Your task to perform on an android device: What is the recent news? Image 0: 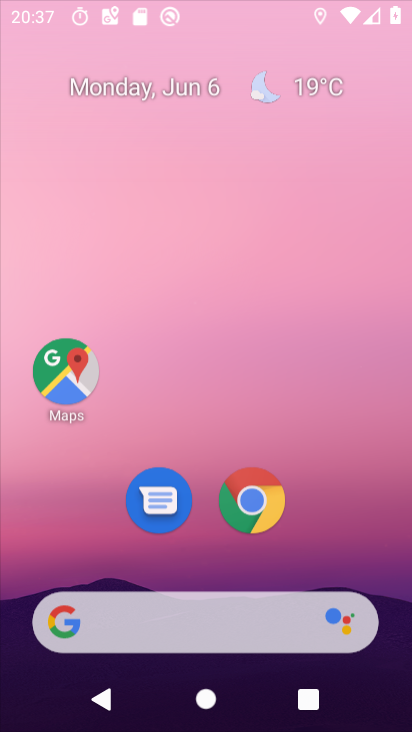
Step 0: drag from (312, 575) to (334, 83)
Your task to perform on an android device: What is the recent news? Image 1: 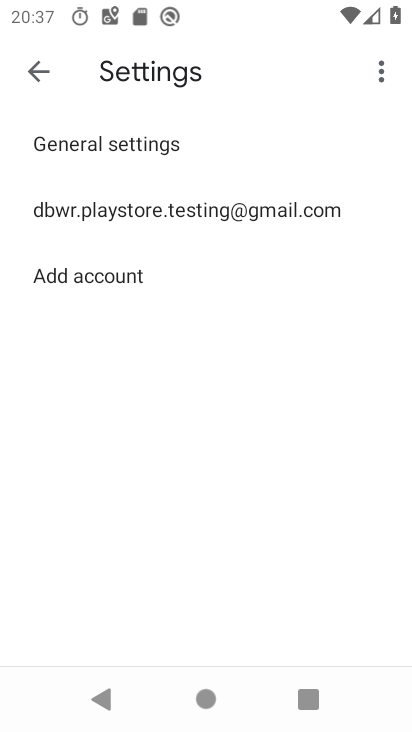
Step 1: press home button
Your task to perform on an android device: What is the recent news? Image 2: 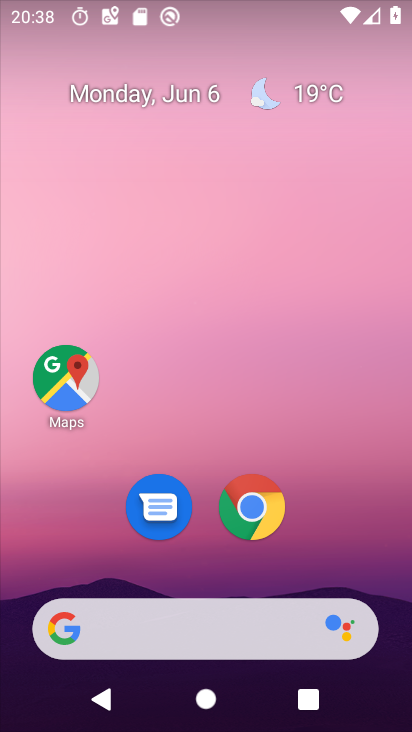
Step 2: click (258, 508)
Your task to perform on an android device: What is the recent news? Image 3: 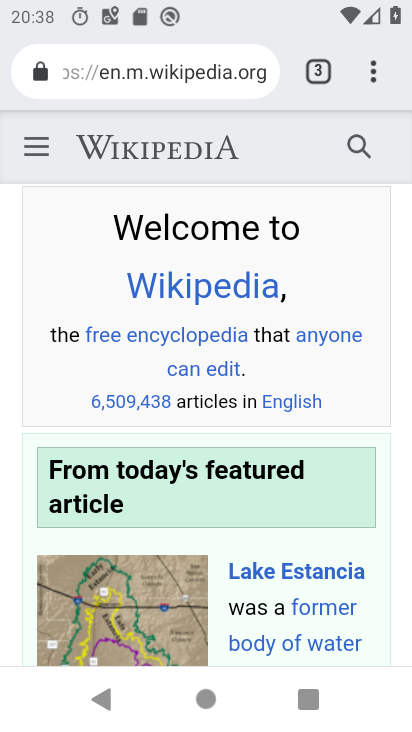
Step 3: click (205, 80)
Your task to perform on an android device: What is the recent news? Image 4: 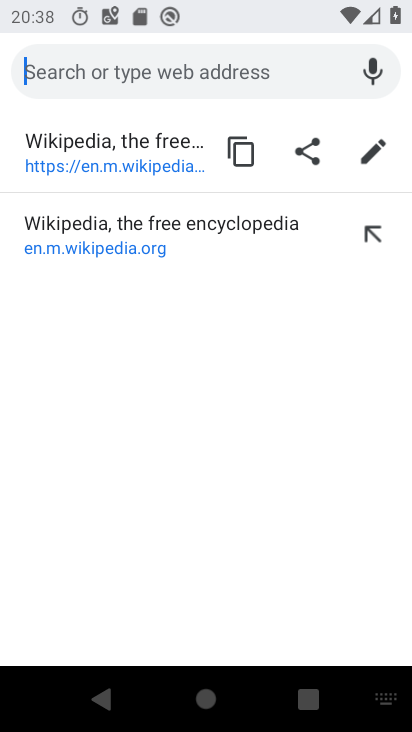
Step 4: type "What is the recent news?"
Your task to perform on an android device: What is the recent news? Image 5: 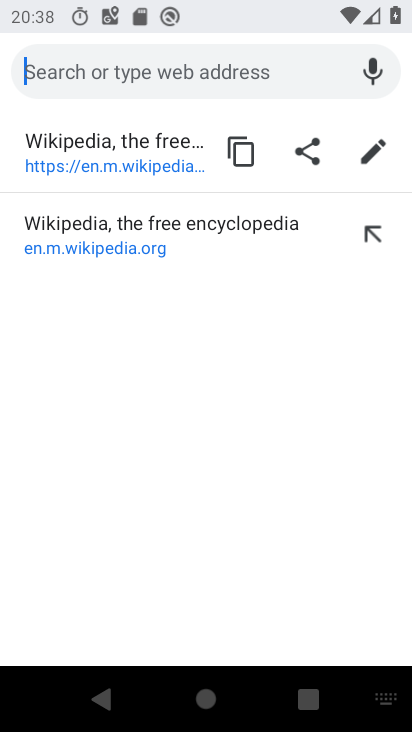
Step 5: click (91, 136)
Your task to perform on an android device: What is the recent news? Image 6: 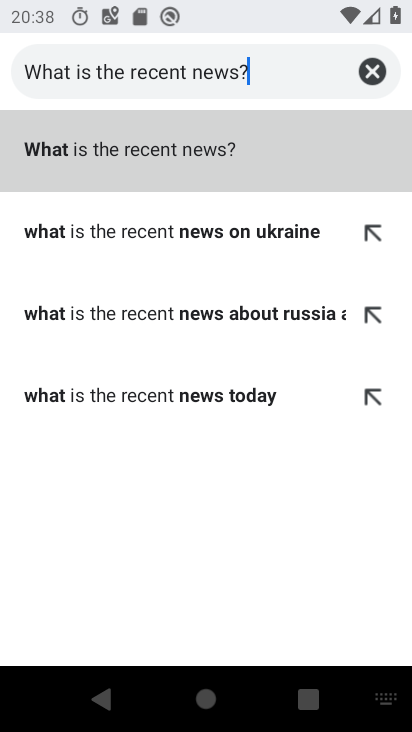
Step 6: type ""
Your task to perform on an android device: What is the recent news? Image 7: 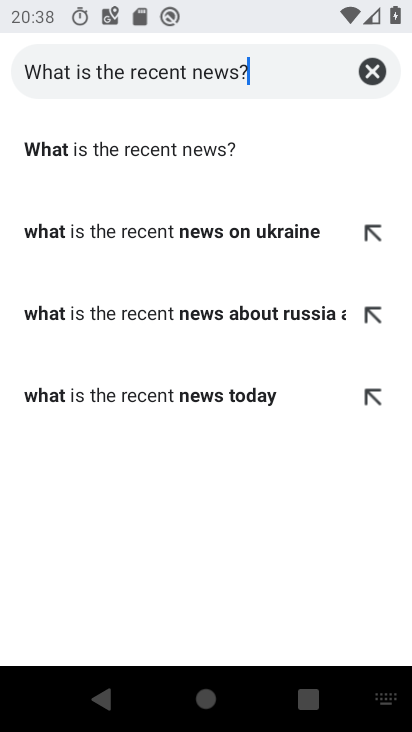
Step 7: click (309, 145)
Your task to perform on an android device: What is the recent news? Image 8: 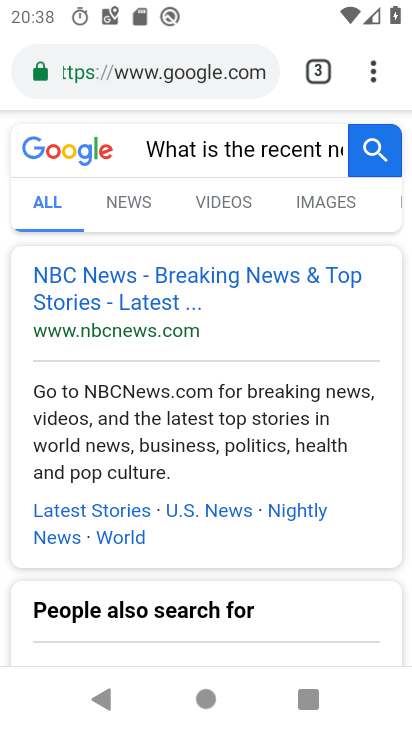
Step 8: task complete